Your task to perform on an android device: Open notification settings Image 0: 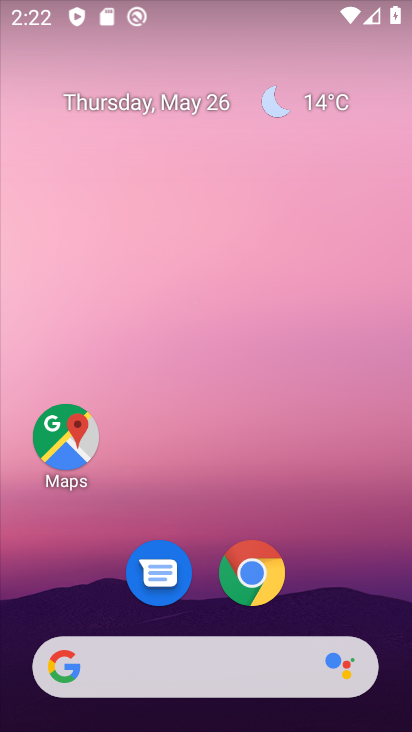
Step 0: drag from (306, 558) to (213, 20)
Your task to perform on an android device: Open notification settings Image 1: 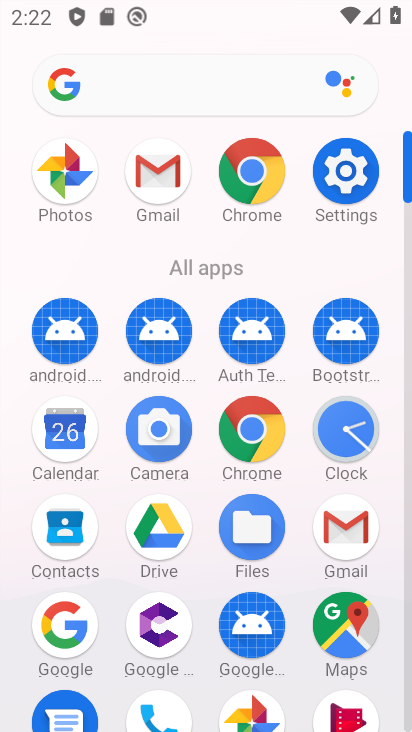
Step 1: drag from (5, 549) to (8, 251)
Your task to perform on an android device: Open notification settings Image 2: 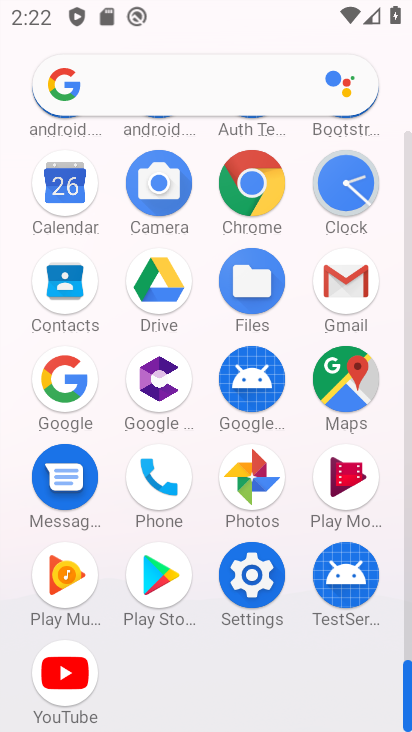
Step 2: click (245, 573)
Your task to perform on an android device: Open notification settings Image 3: 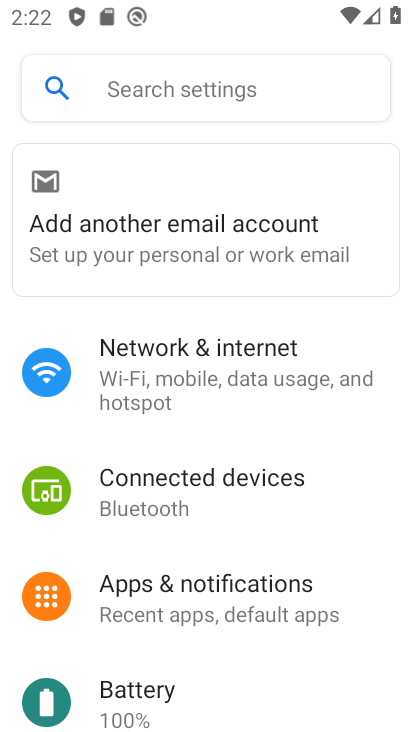
Step 3: drag from (278, 603) to (278, 336)
Your task to perform on an android device: Open notification settings Image 4: 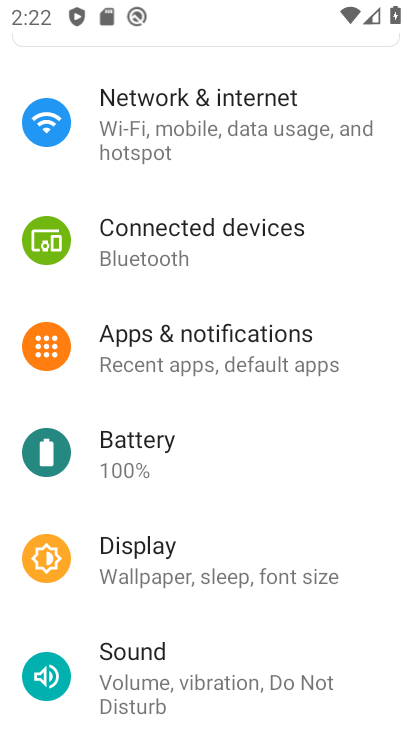
Step 4: click (234, 354)
Your task to perform on an android device: Open notification settings Image 5: 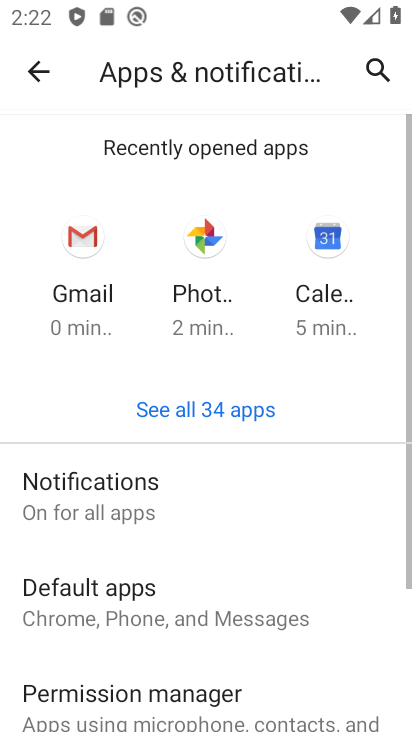
Step 5: drag from (303, 562) to (292, 220)
Your task to perform on an android device: Open notification settings Image 6: 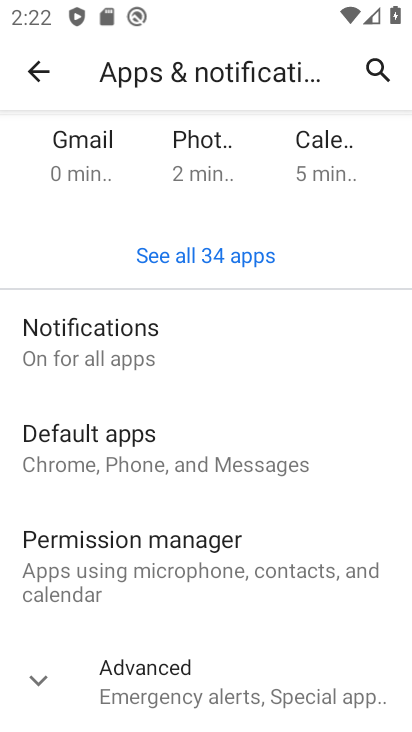
Step 6: click (177, 331)
Your task to perform on an android device: Open notification settings Image 7: 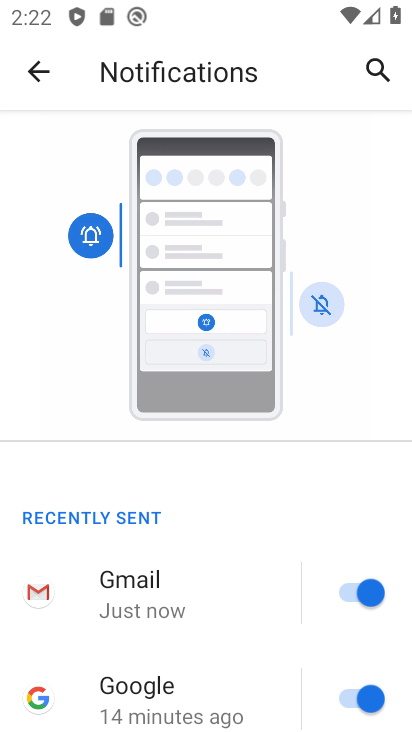
Step 7: drag from (234, 660) to (238, 253)
Your task to perform on an android device: Open notification settings Image 8: 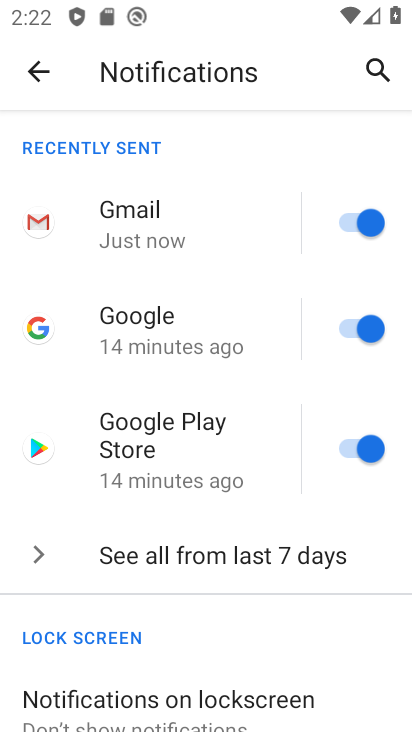
Step 8: drag from (160, 671) to (196, 283)
Your task to perform on an android device: Open notification settings Image 9: 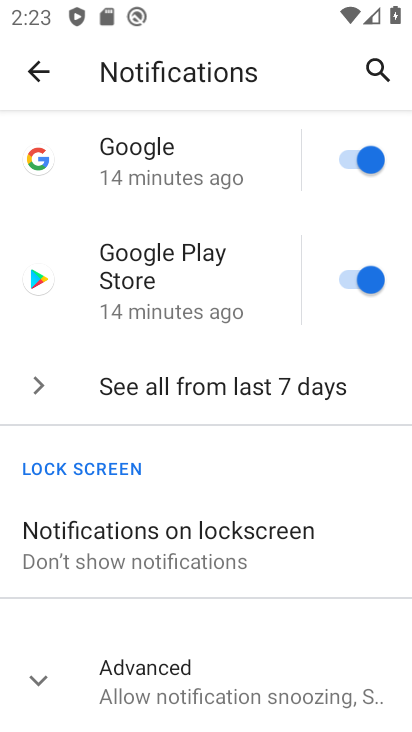
Step 9: click (30, 679)
Your task to perform on an android device: Open notification settings Image 10: 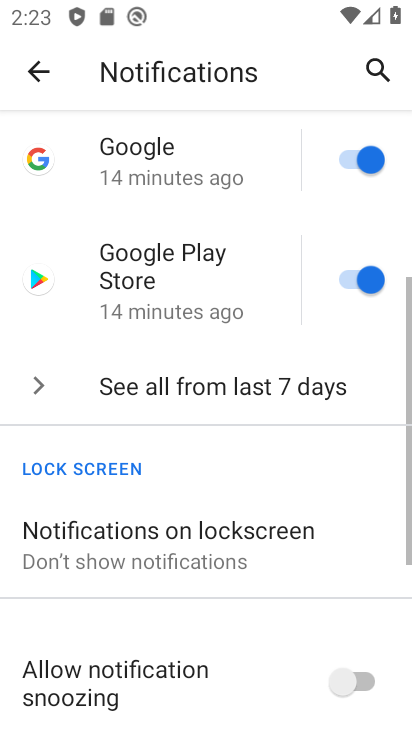
Step 10: task complete